Your task to perform on an android device: How do I get to the nearest T-Mobile Store? Image 0: 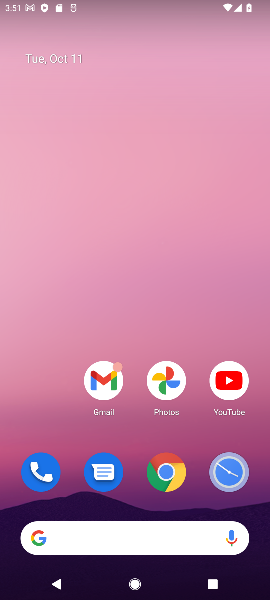
Step 0: drag from (134, 504) to (129, 159)
Your task to perform on an android device: How do I get to the nearest T-Mobile Store? Image 1: 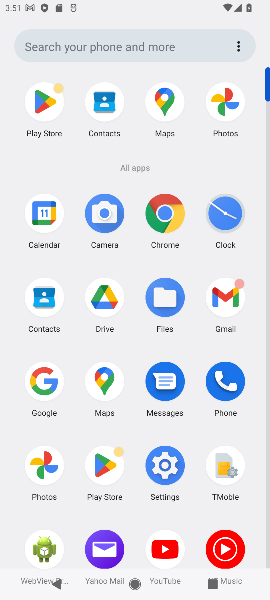
Step 1: click (97, 382)
Your task to perform on an android device: How do I get to the nearest T-Mobile Store? Image 2: 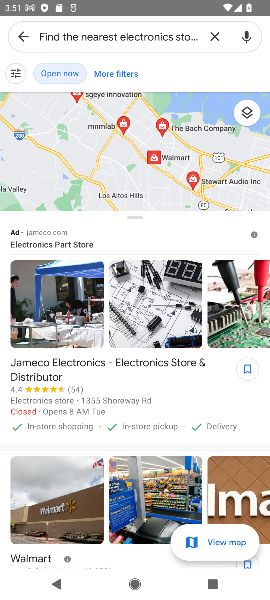
Step 2: click (211, 36)
Your task to perform on an android device: How do I get to the nearest T-Mobile Store? Image 3: 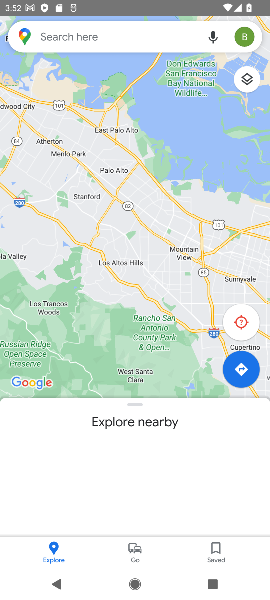
Step 3: click (108, 39)
Your task to perform on an android device: How do I get to the nearest T-Mobile Store? Image 4: 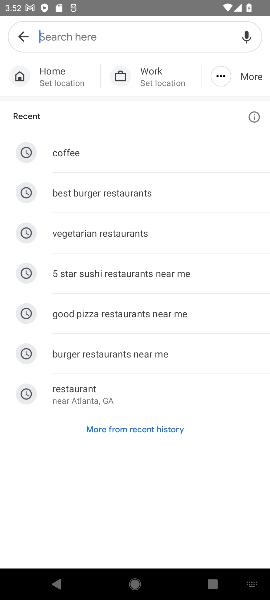
Step 4: type "How do I get to the nearest T-Mobile Store?"
Your task to perform on an android device: How do I get to the nearest T-Mobile Store? Image 5: 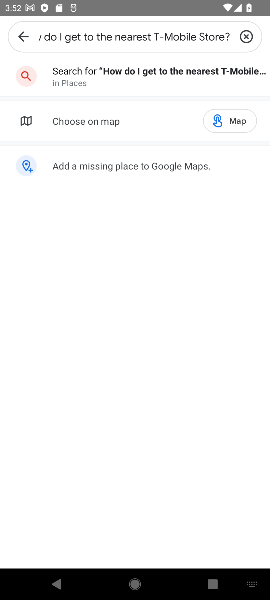
Step 5: click (214, 75)
Your task to perform on an android device: How do I get to the nearest T-Mobile Store? Image 6: 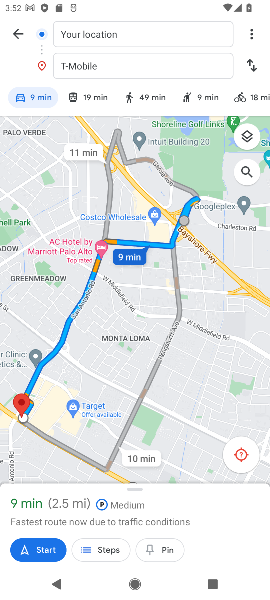
Step 6: task complete